Your task to perform on an android device: turn off smart reply in the gmail app Image 0: 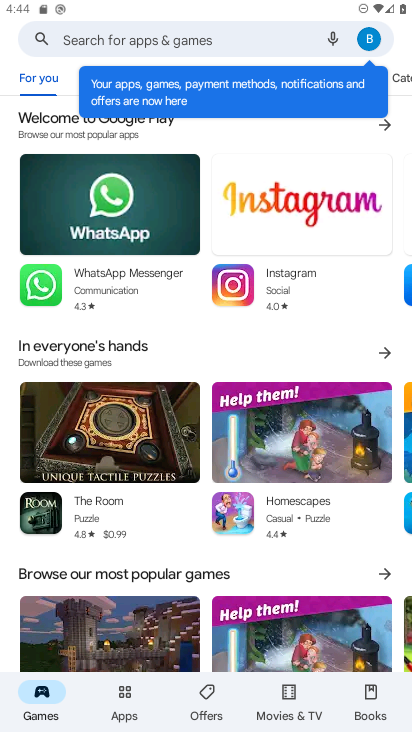
Step 0: press home button
Your task to perform on an android device: turn off smart reply in the gmail app Image 1: 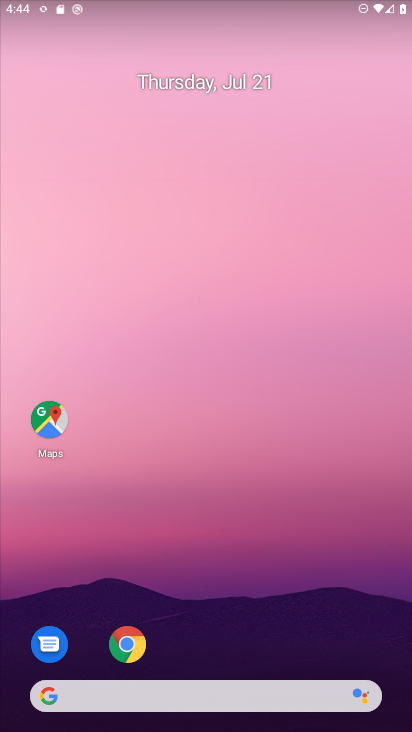
Step 1: drag from (200, 593) to (232, 196)
Your task to perform on an android device: turn off smart reply in the gmail app Image 2: 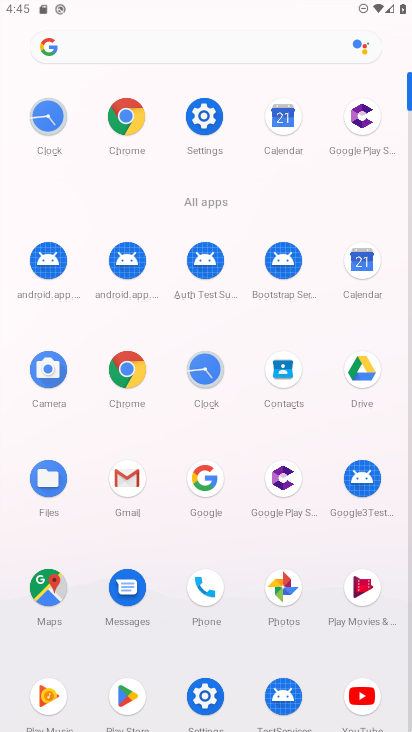
Step 2: click (129, 483)
Your task to perform on an android device: turn off smart reply in the gmail app Image 3: 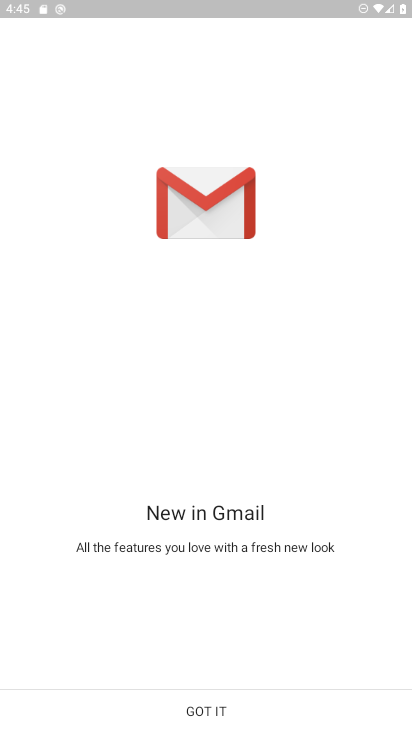
Step 3: click (203, 698)
Your task to perform on an android device: turn off smart reply in the gmail app Image 4: 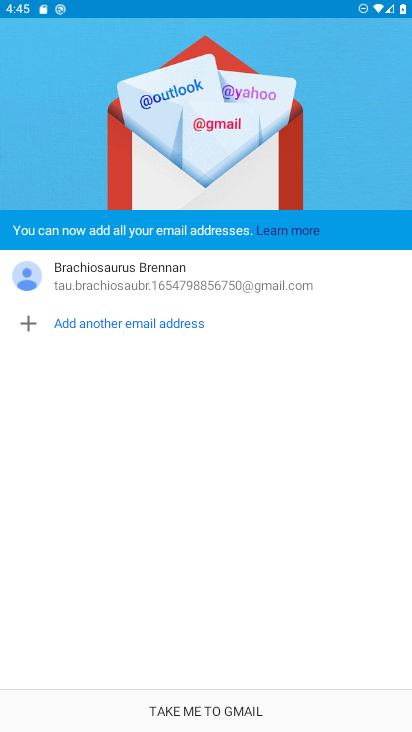
Step 4: click (203, 698)
Your task to perform on an android device: turn off smart reply in the gmail app Image 5: 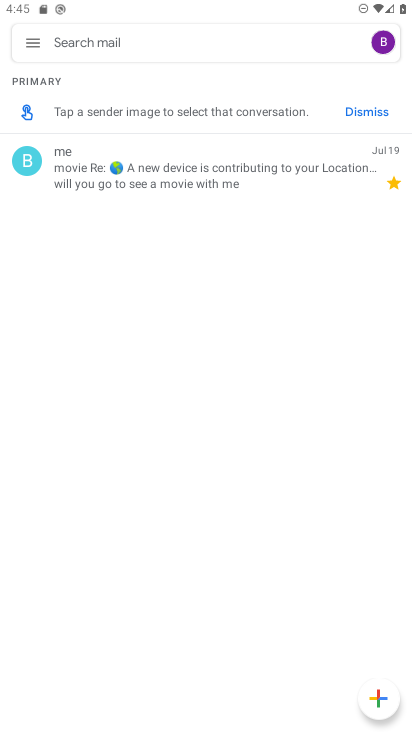
Step 5: click (39, 47)
Your task to perform on an android device: turn off smart reply in the gmail app Image 6: 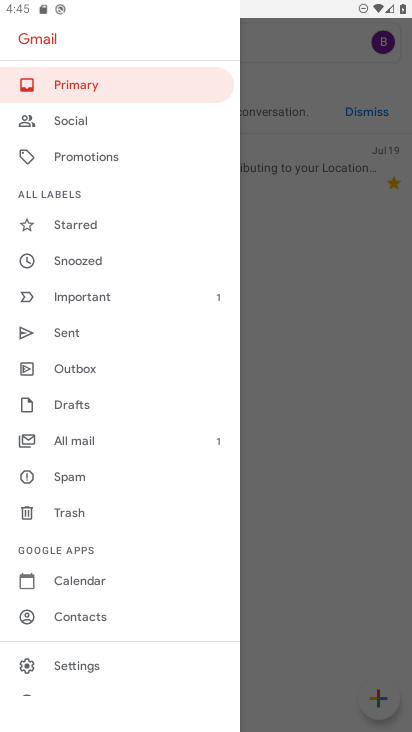
Step 6: click (80, 664)
Your task to perform on an android device: turn off smart reply in the gmail app Image 7: 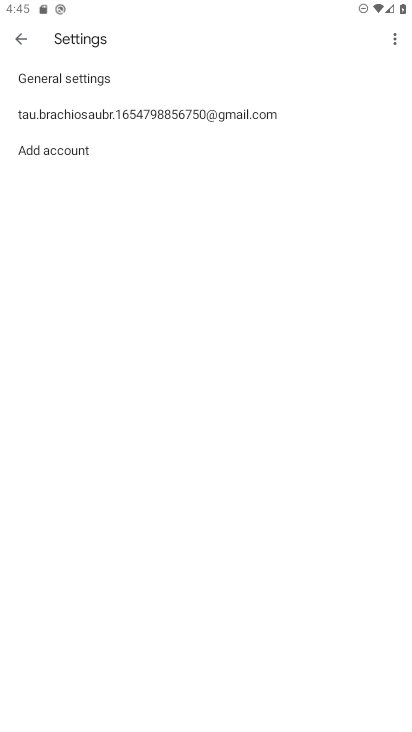
Step 7: click (197, 117)
Your task to perform on an android device: turn off smart reply in the gmail app Image 8: 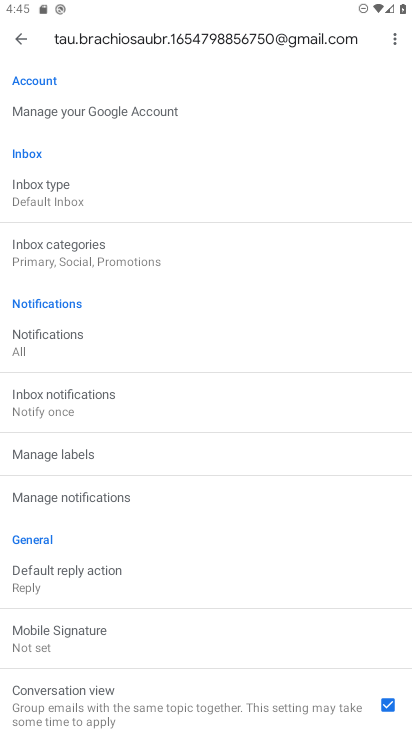
Step 8: drag from (120, 579) to (135, 355)
Your task to perform on an android device: turn off smart reply in the gmail app Image 9: 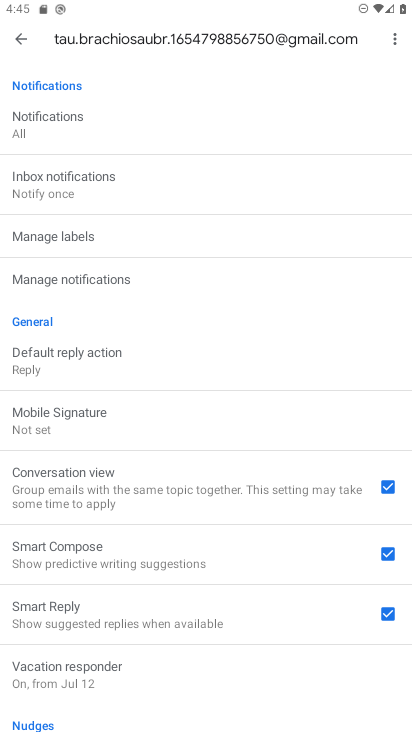
Step 9: click (394, 625)
Your task to perform on an android device: turn off smart reply in the gmail app Image 10: 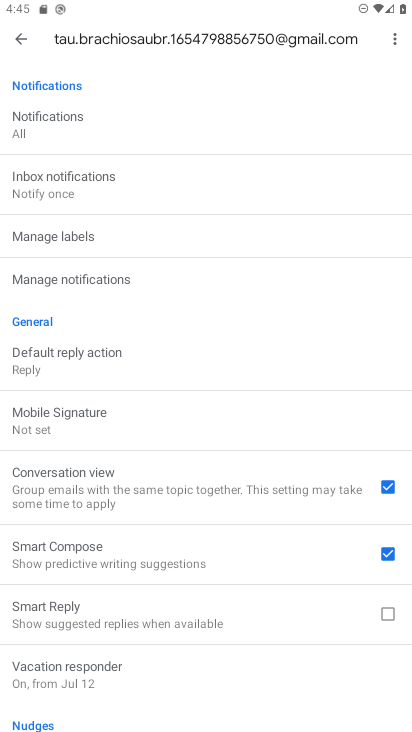
Step 10: task complete